Your task to perform on an android device: manage bookmarks in the chrome app Image 0: 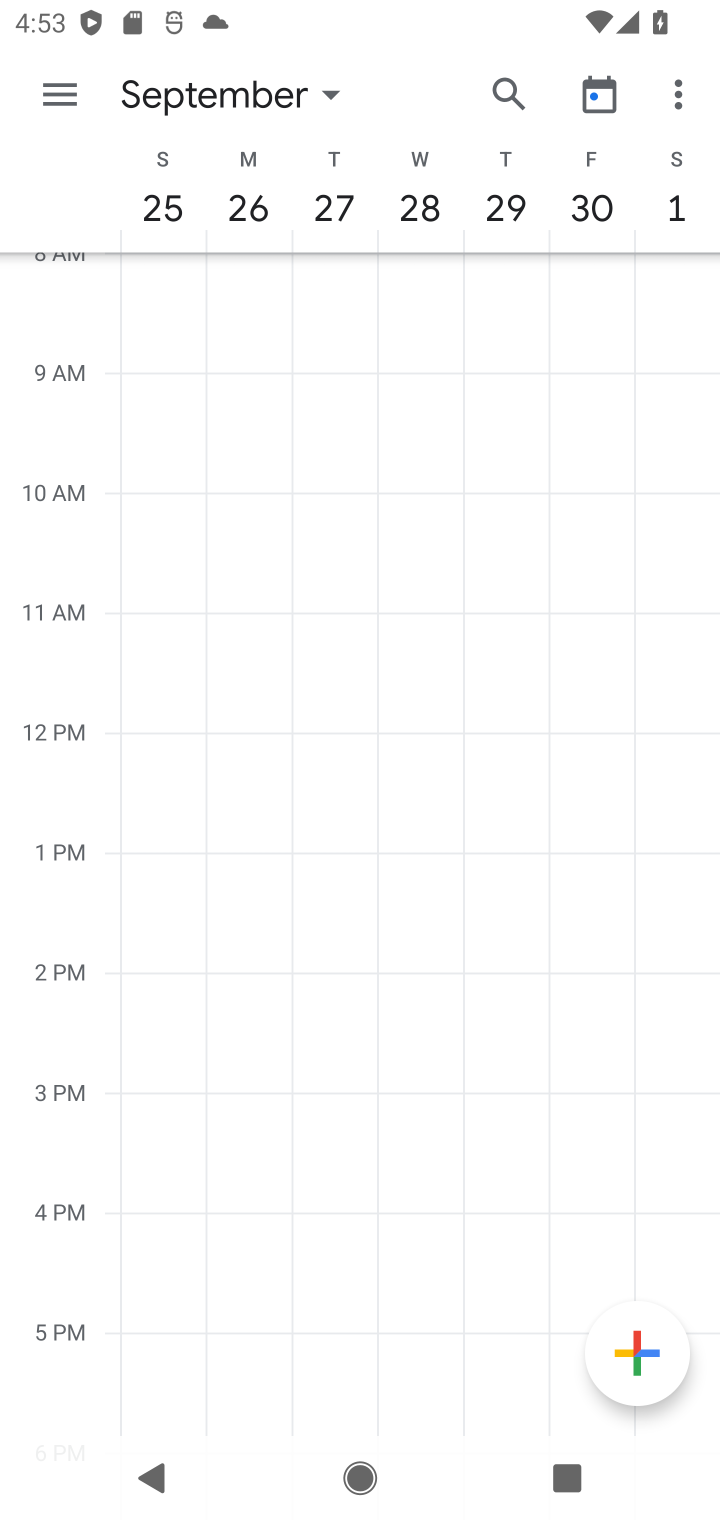
Step 0: press home button
Your task to perform on an android device: manage bookmarks in the chrome app Image 1: 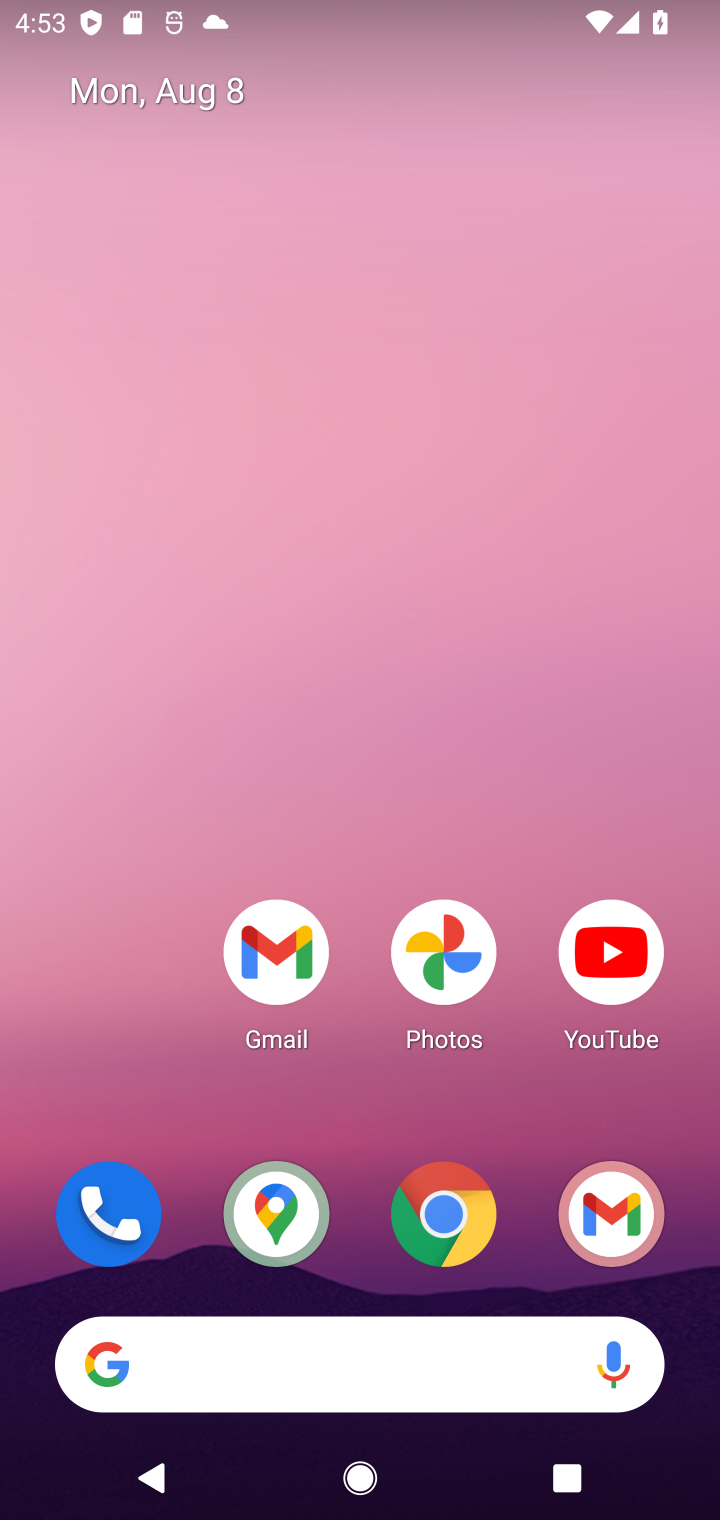
Step 1: drag from (352, 1296) to (395, 88)
Your task to perform on an android device: manage bookmarks in the chrome app Image 2: 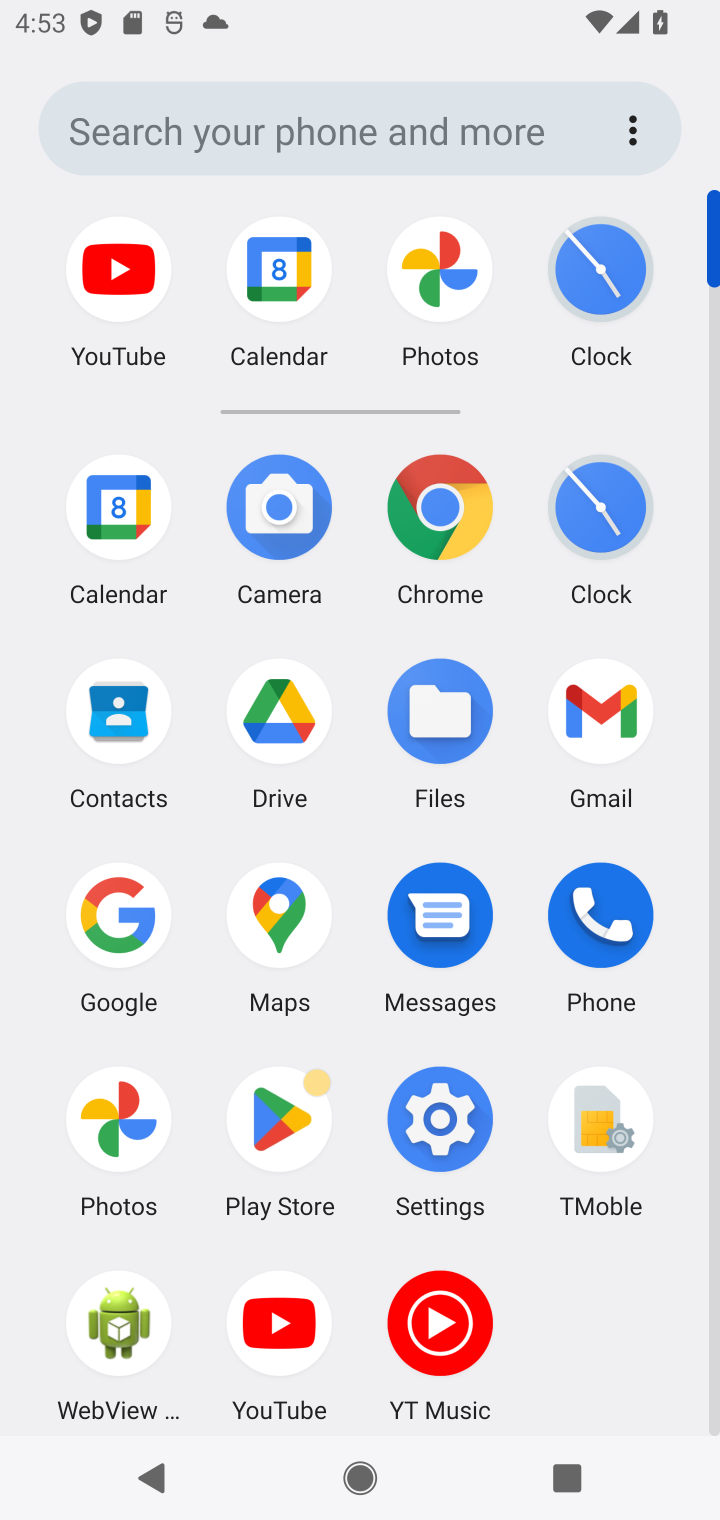
Step 2: click (443, 505)
Your task to perform on an android device: manage bookmarks in the chrome app Image 3: 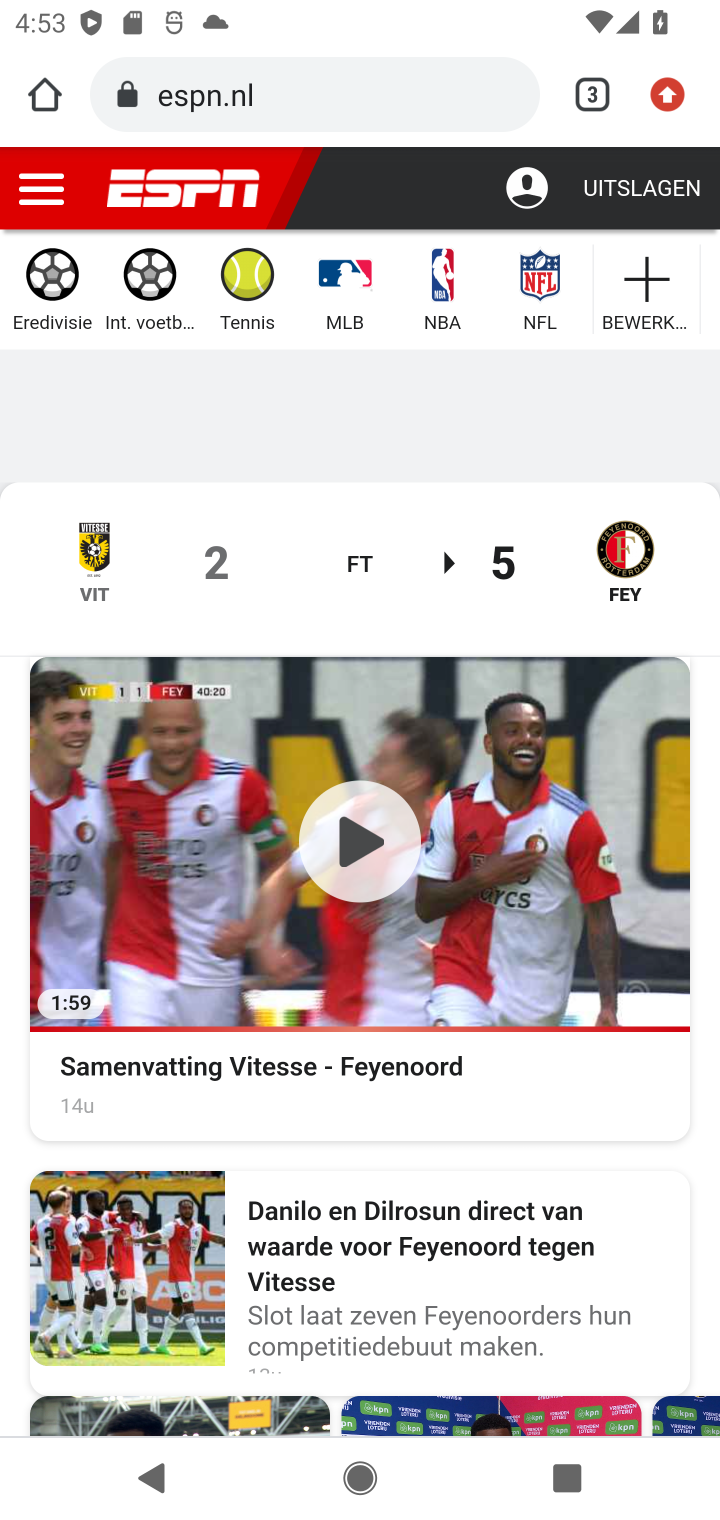
Step 3: drag from (673, 101) to (392, 682)
Your task to perform on an android device: manage bookmarks in the chrome app Image 4: 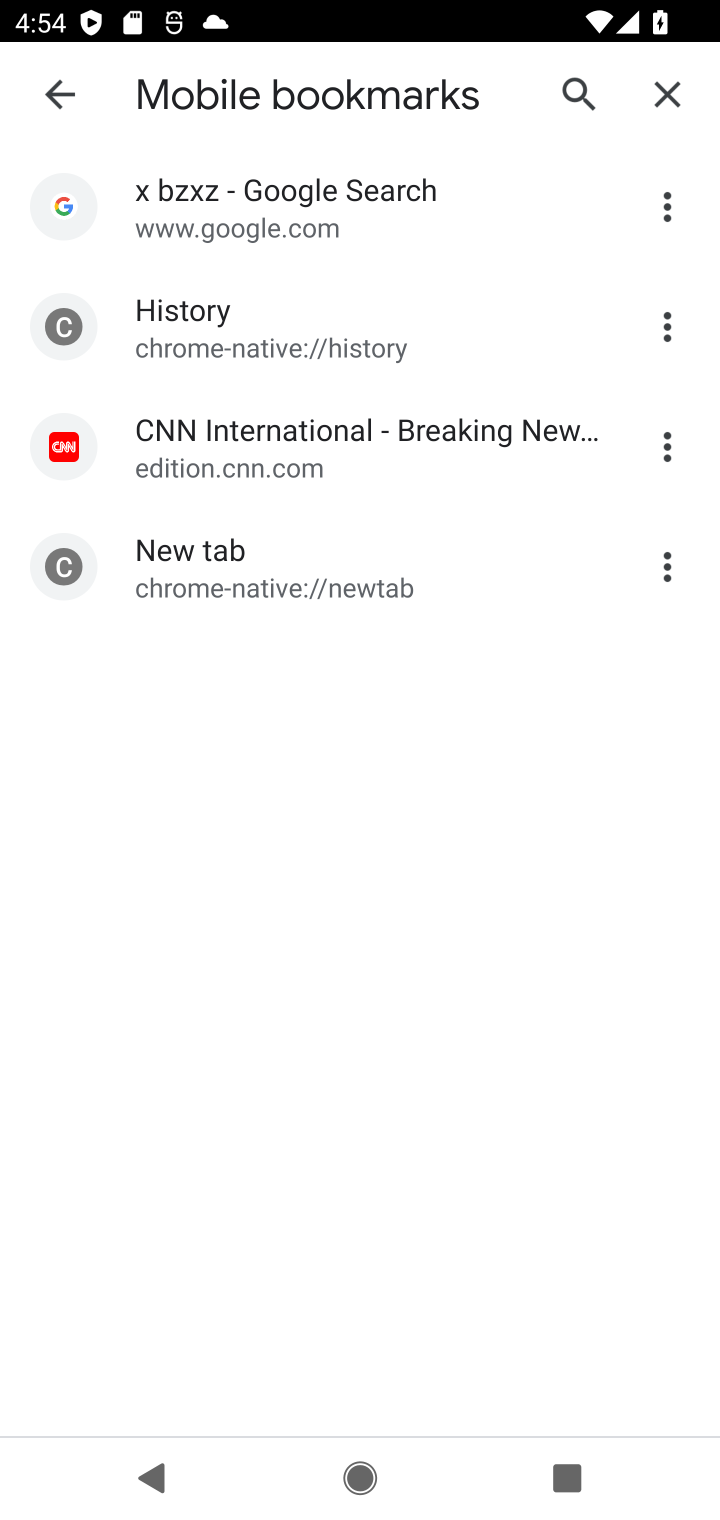
Step 4: click (671, 448)
Your task to perform on an android device: manage bookmarks in the chrome app Image 5: 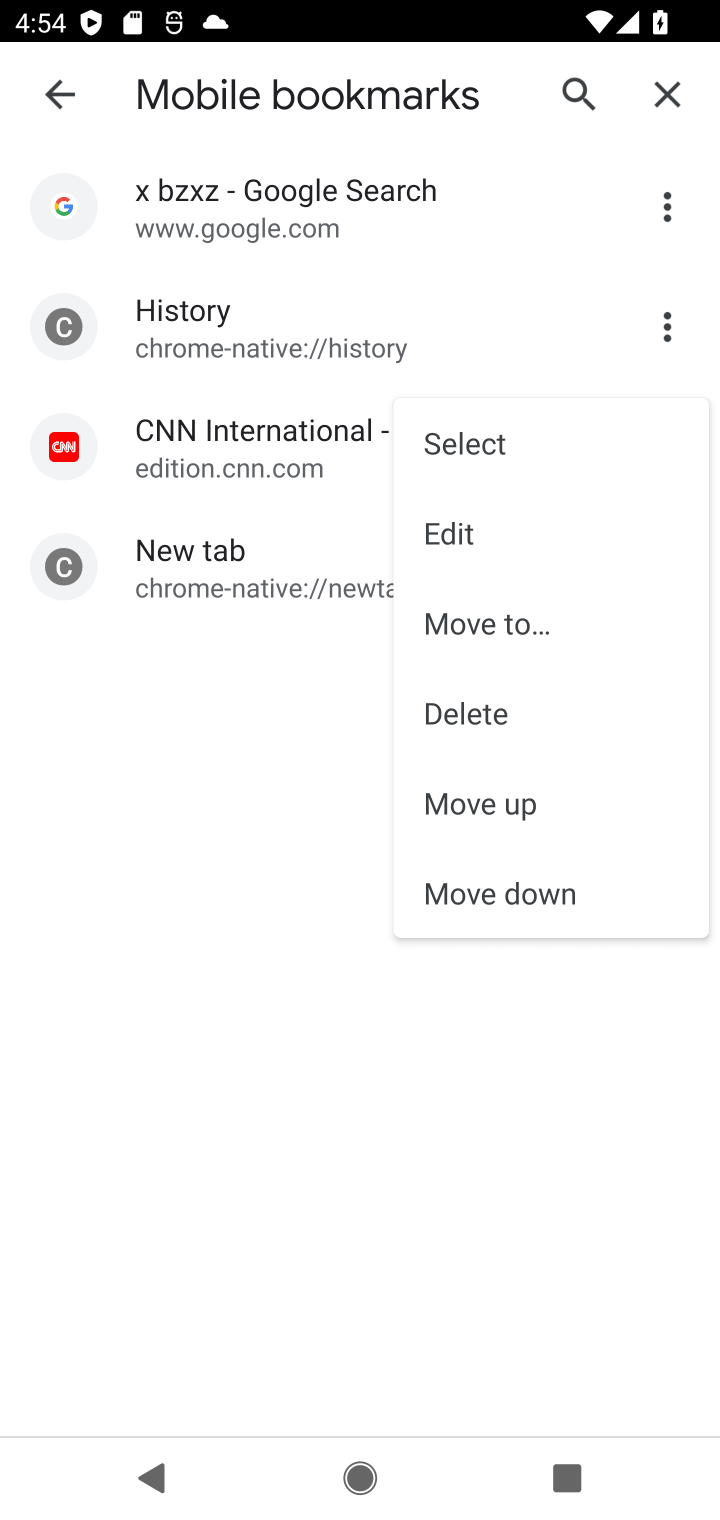
Step 5: click (450, 531)
Your task to perform on an android device: manage bookmarks in the chrome app Image 6: 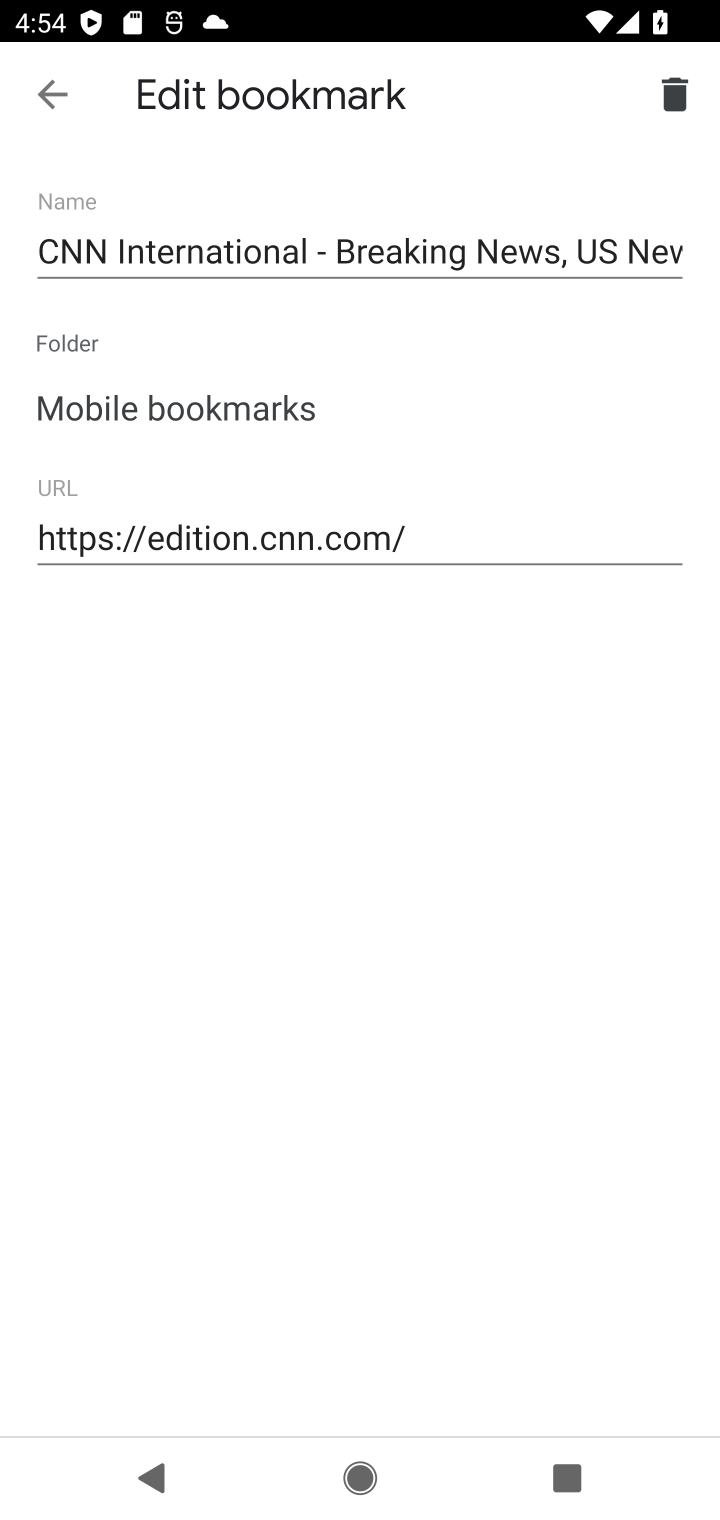
Step 6: click (285, 260)
Your task to perform on an android device: manage bookmarks in the chrome app Image 7: 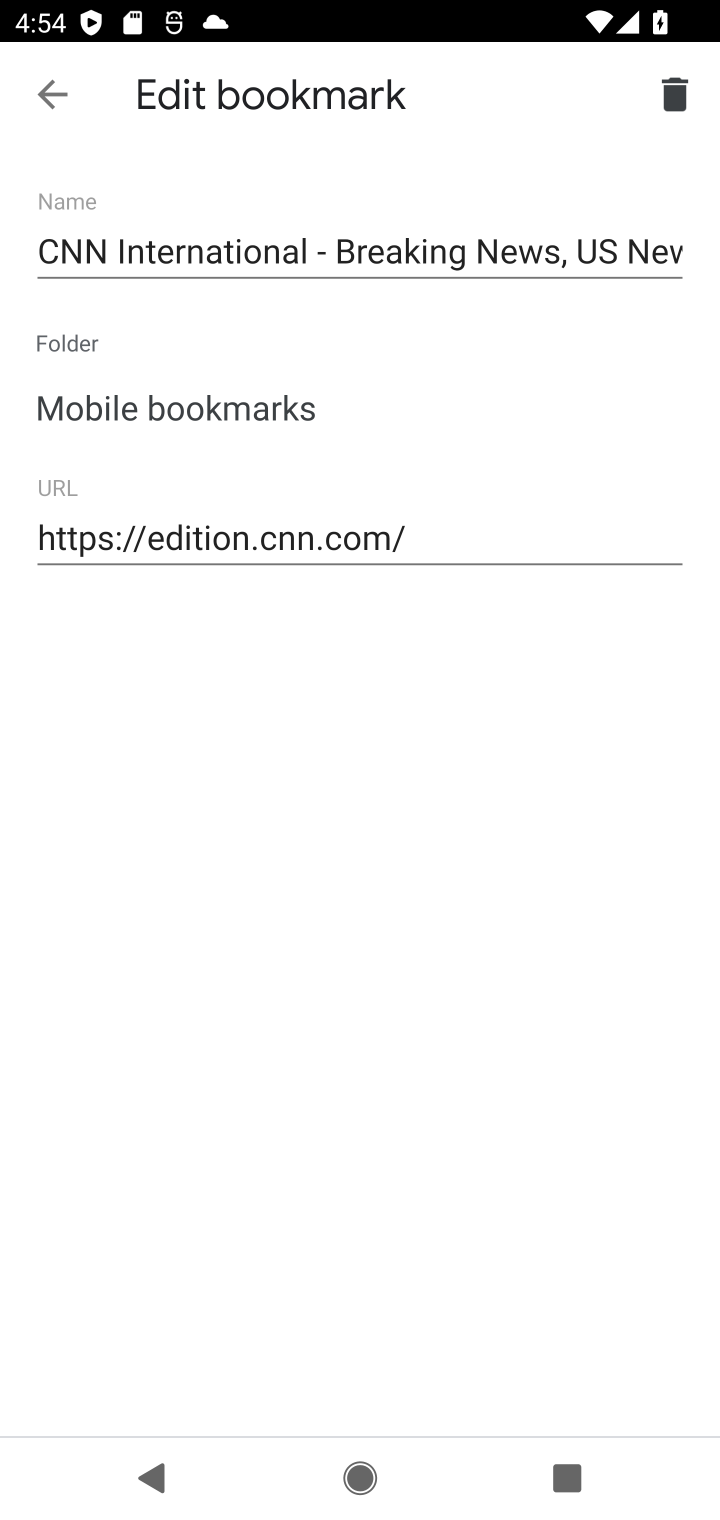
Step 7: click (285, 260)
Your task to perform on an android device: manage bookmarks in the chrome app Image 8: 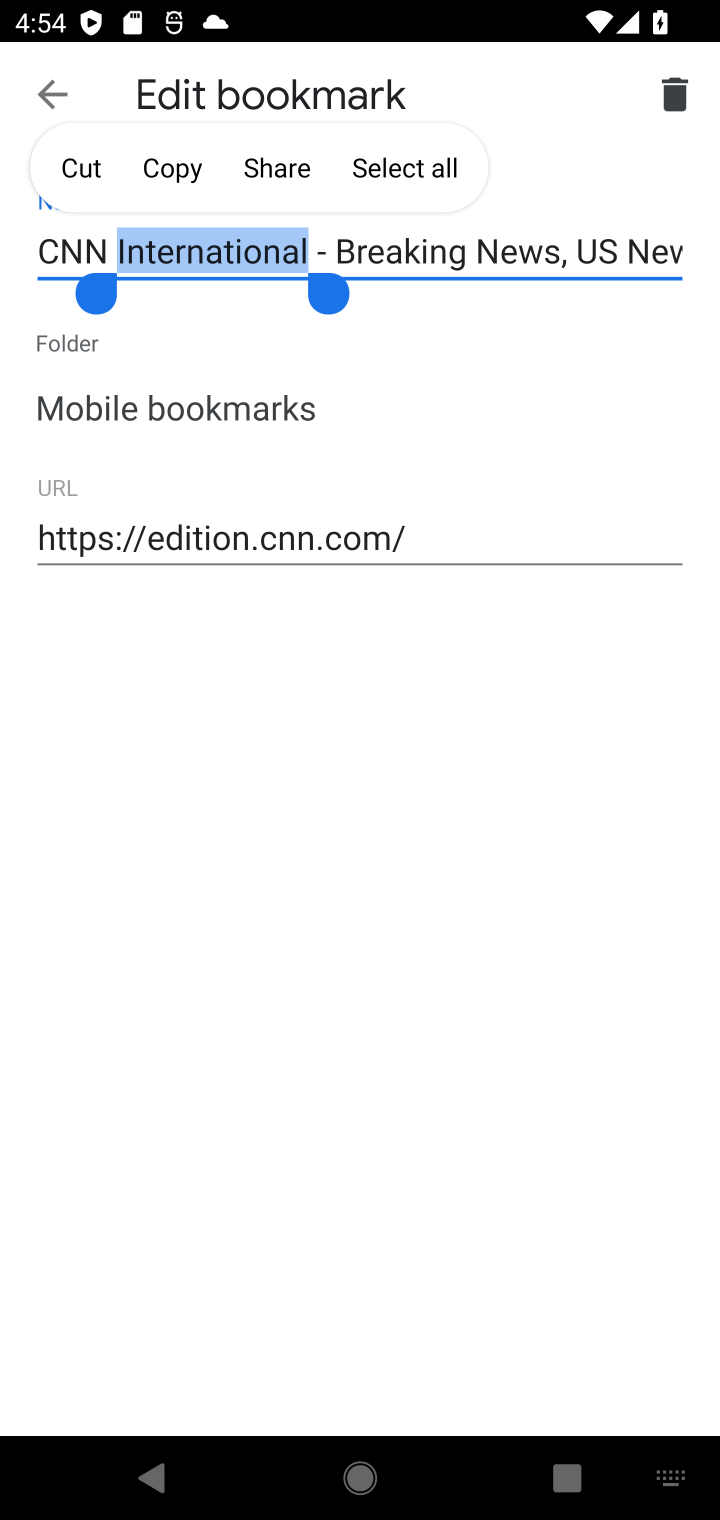
Step 8: click (80, 166)
Your task to perform on an android device: manage bookmarks in the chrome app Image 9: 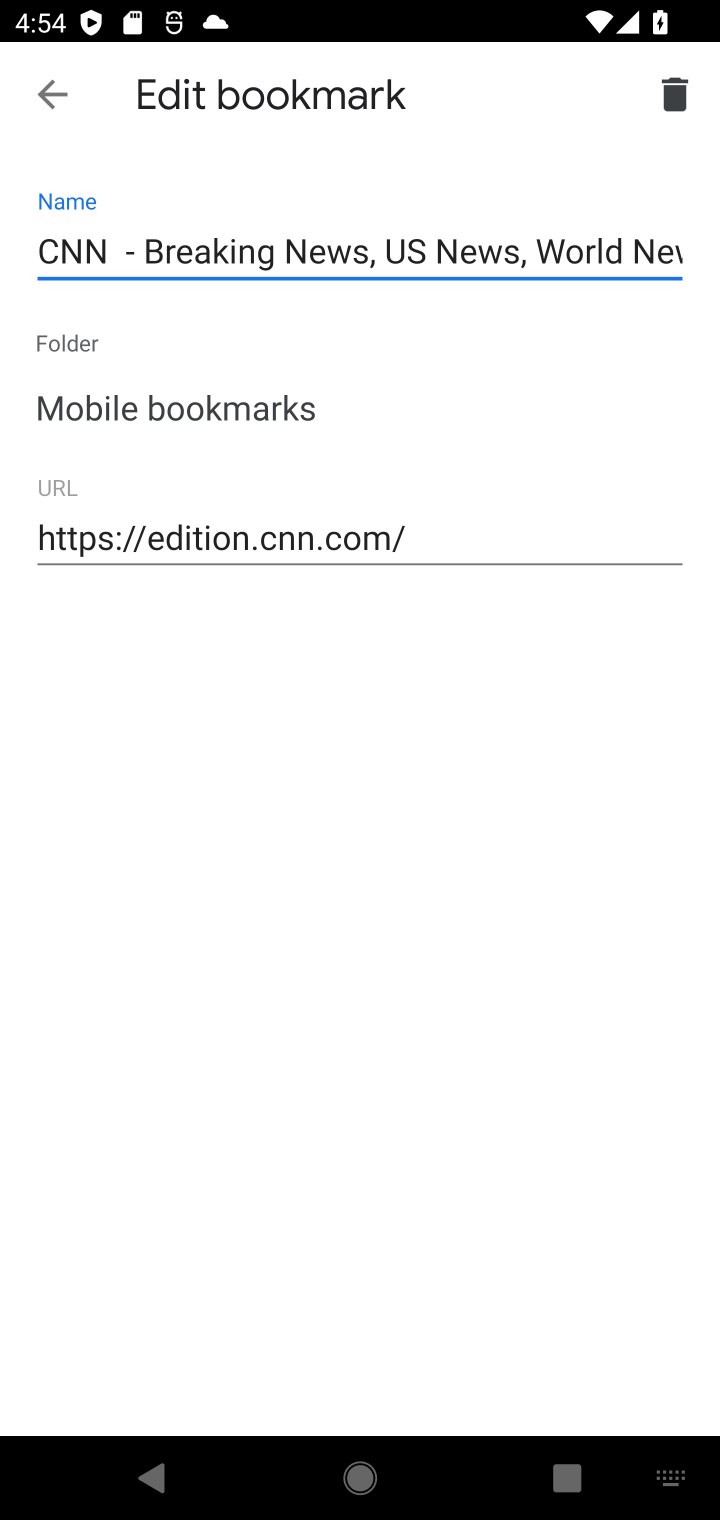
Step 9: click (48, 85)
Your task to perform on an android device: manage bookmarks in the chrome app Image 10: 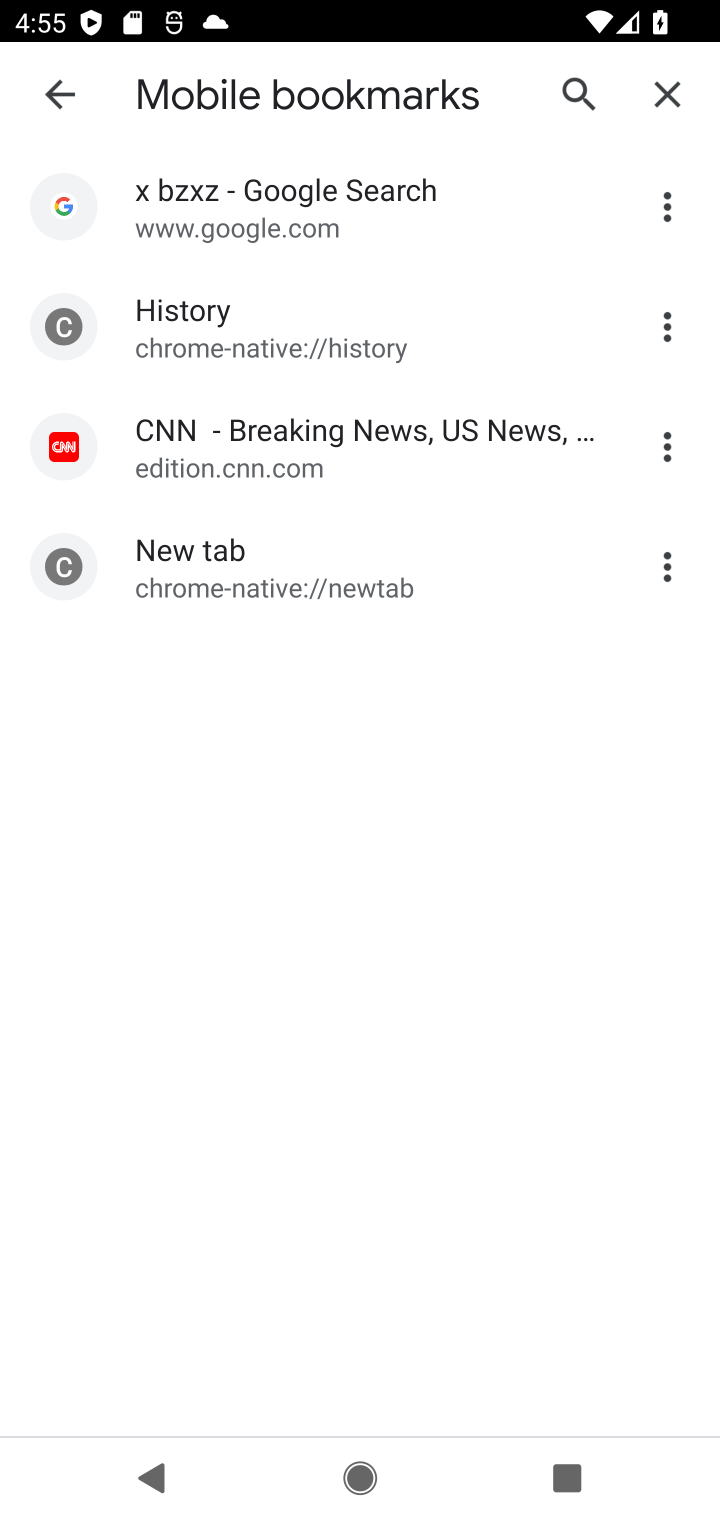
Step 10: task complete